Your task to perform on an android device: Open Google Chrome Image 0: 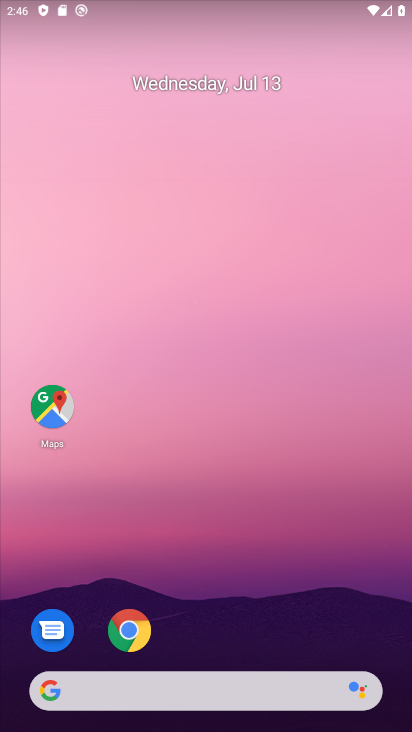
Step 0: click (124, 642)
Your task to perform on an android device: Open Google Chrome Image 1: 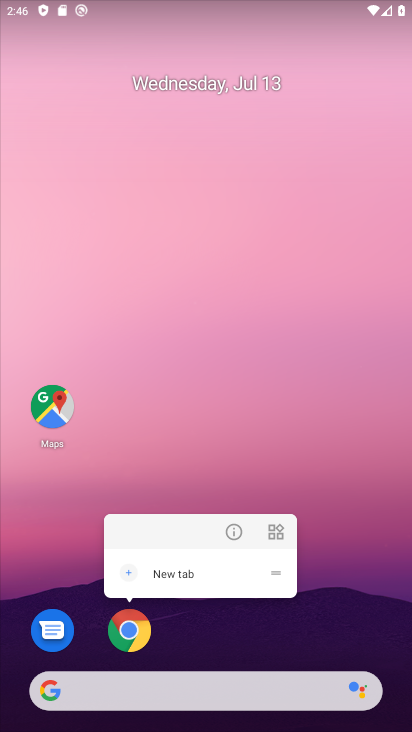
Step 1: click (123, 633)
Your task to perform on an android device: Open Google Chrome Image 2: 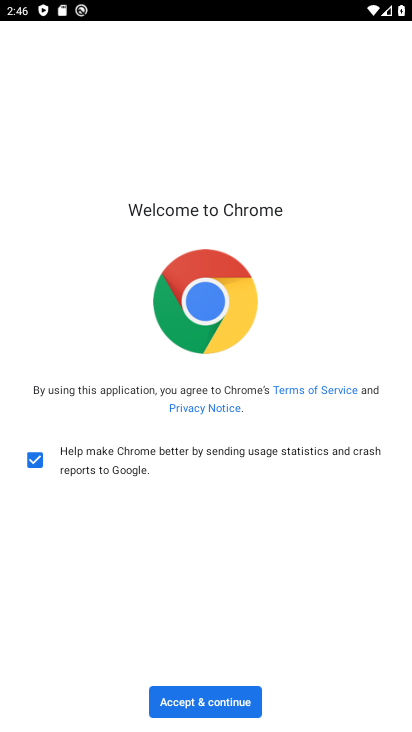
Step 2: click (155, 696)
Your task to perform on an android device: Open Google Chrome Image 3: 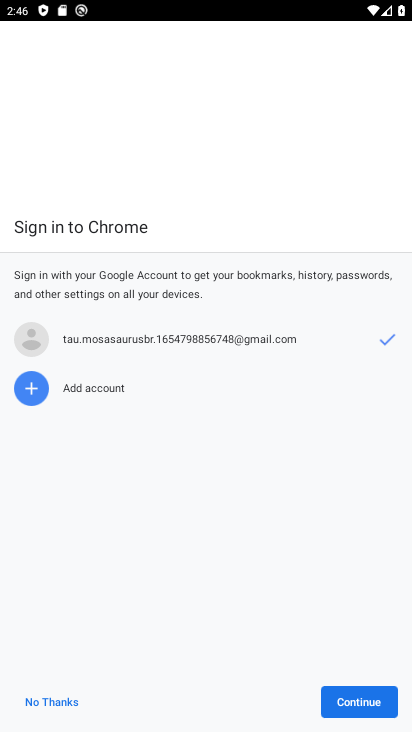
Step 3: click (355, 708)
Your task to perform on an android device: Open Google Chrome Image 4: 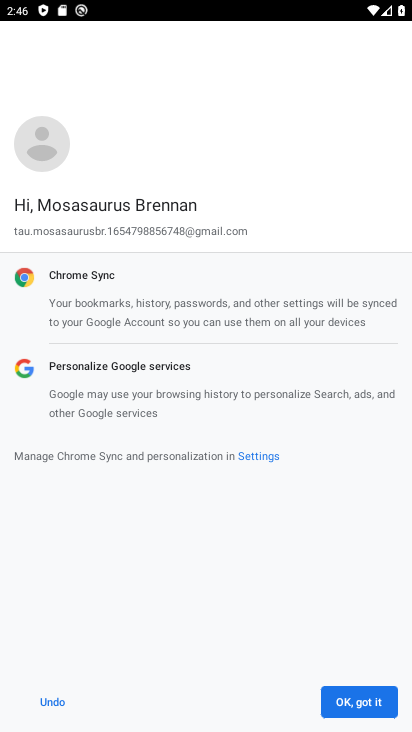
Step 4: click (342, 704)
Your task to perform on an android device: Open Google Chrome Image 5: 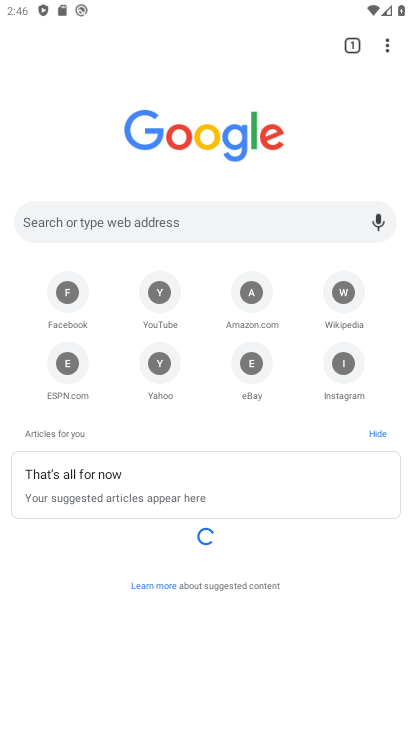
Step 5: click (72, 229)
Your task to perform on an android device: Open Google Chrome Image 6: 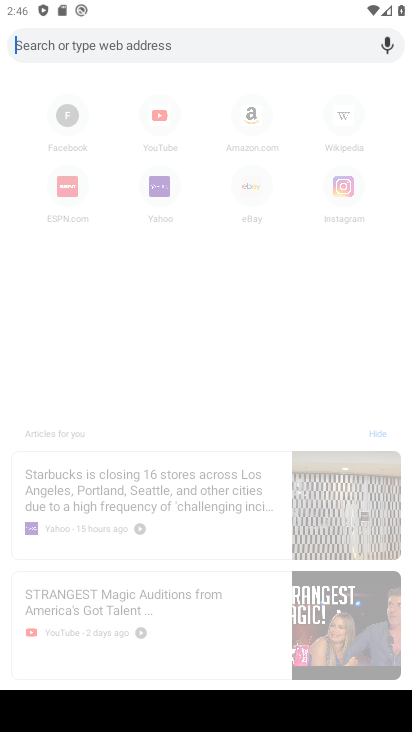
Step 6: task complete